Your task to perform on an android device: Do I have any events tomorrow? Image 0: 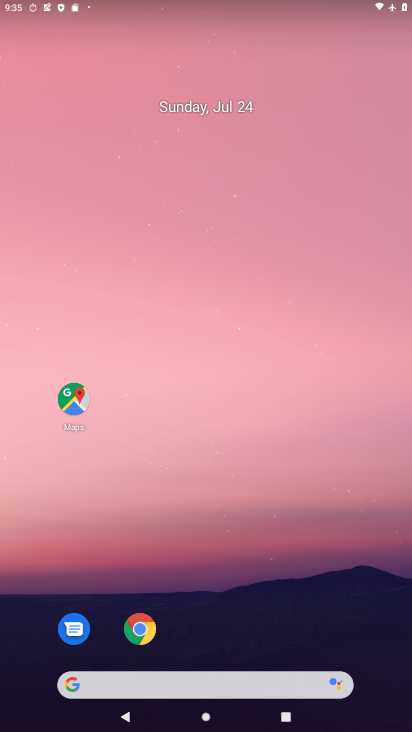
Step 0: drag from (242, 515) to (389, 241)
Your task to perform on an android device: Do I have any events tomorrow? Image 1: 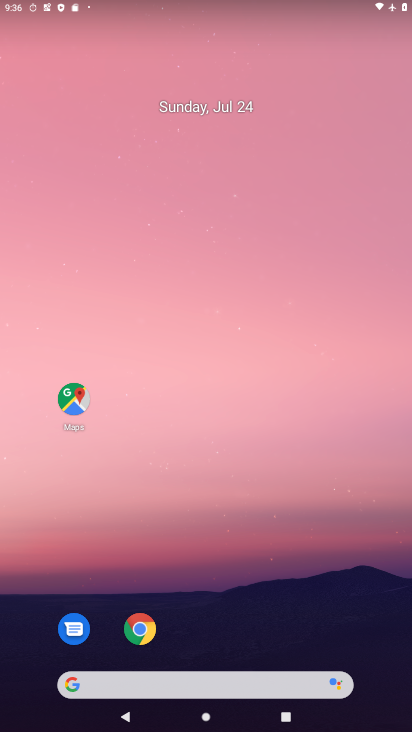
Step 1: drag from (194, 696) to (319, 7)
Your task to perform on an android device: Do I have any events tomorrow? Image 2: 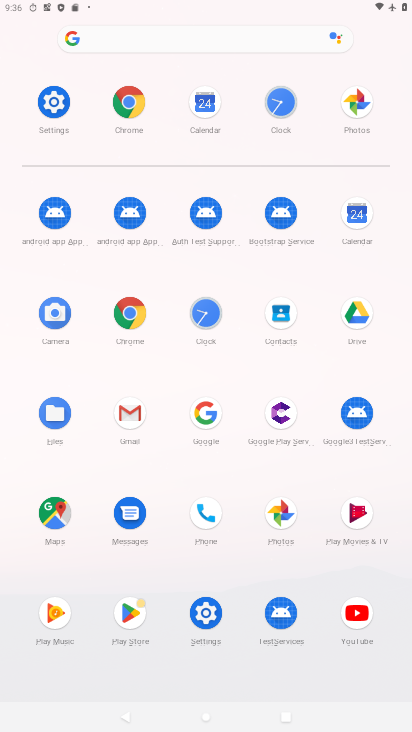
Step 2: click (348, 213)
Your task to perform on an android device: Do I have any events tomorrow? Image 3: 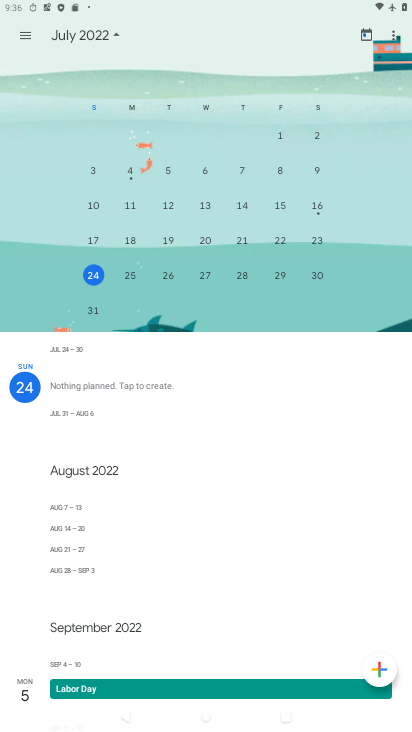
Step 3: click (133, 281)
Your task to perform on an android device: Do I have any events tomorrow? Image 4: 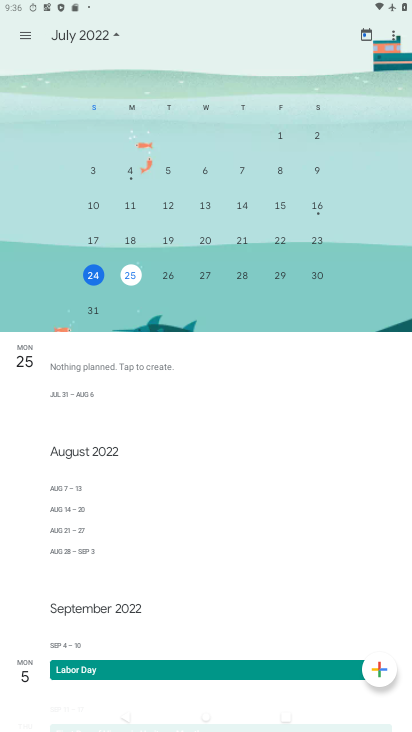
Step 4: task complete